Your task to perform on an android device: Is it going to rain this weekend? Image 0: 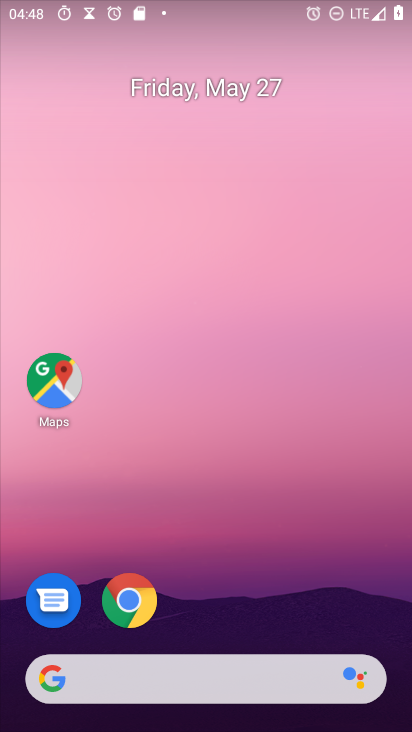
Step 0: drag from (220, 698) to (205, 182)
Your task to perform on an android device: Is it going to rain this weekend? Image 1: 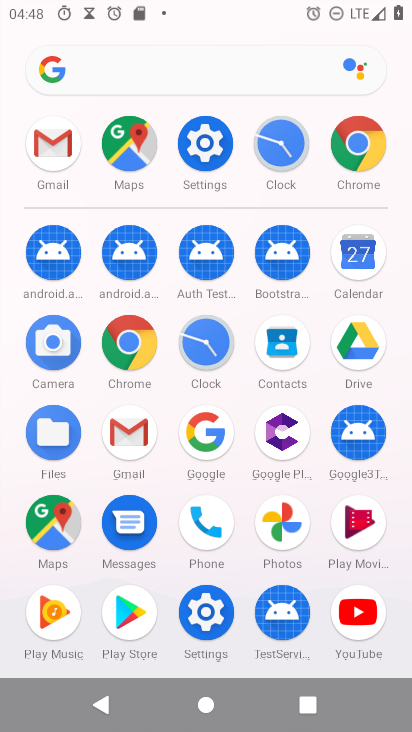
Step 1: click (214, 419)
Your task to perform on an android device: Is it going to rain this weekend? Image 2: 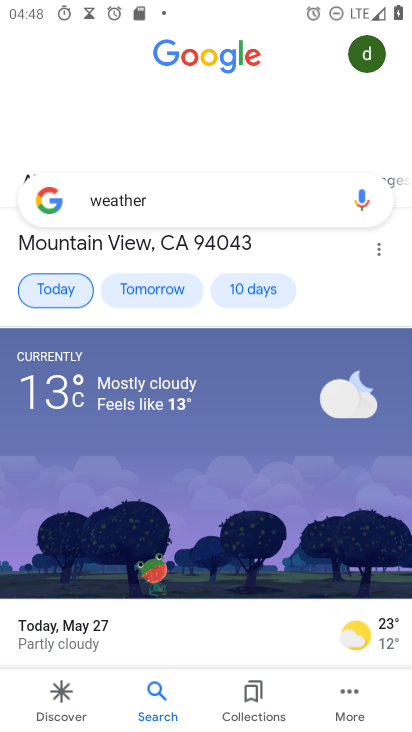
Step 2: click (249, 287)
Your task to perform on an android device: Is it going to rain this weekend? Image 3: 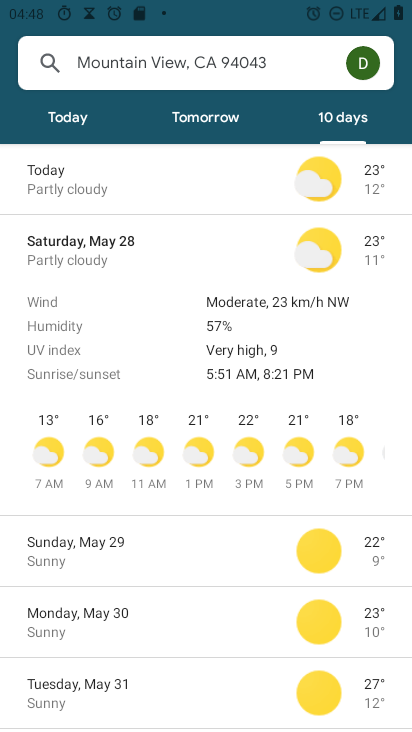
Step 3: task complete